Your task to perform on an android device: open a new tab in the chrome app Image 0: 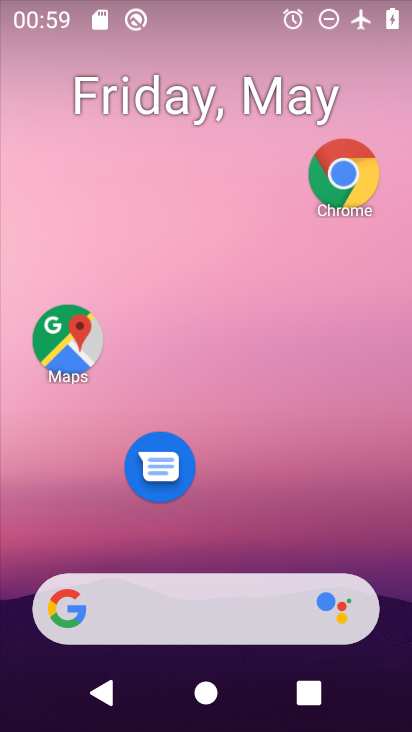
Step 0: click (340, 171)
Your task to perform on an android device: open a new tab in the chrome app Image 1: 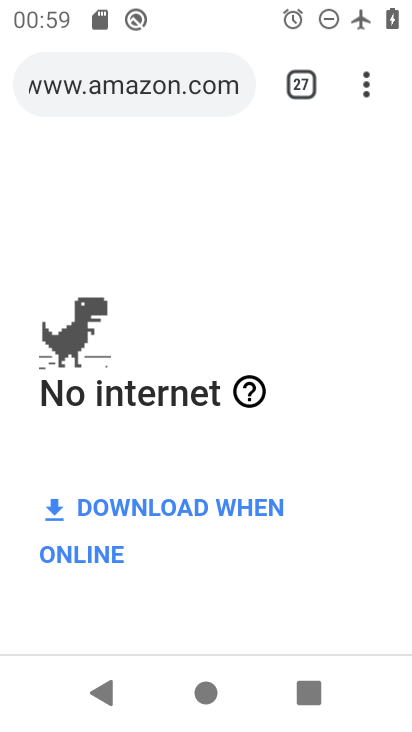
Step 1: click (357, 57)
Your task to perform on an android device: open a new tab in the chrome app Image 2: 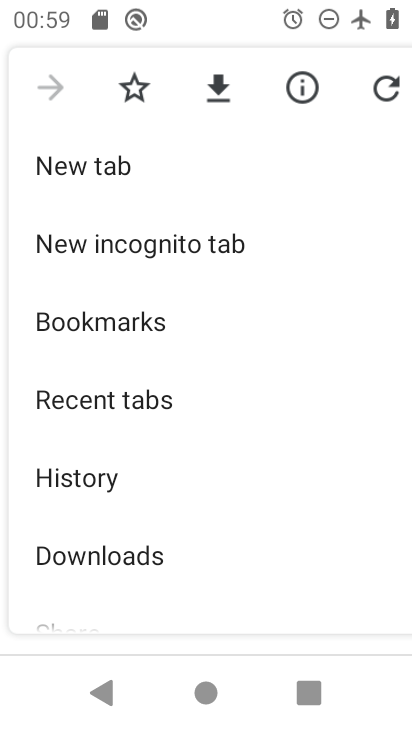
Step 2: click (133, 162)
Your task to perform on an android device: open a new tab in the chrome app Image 3: 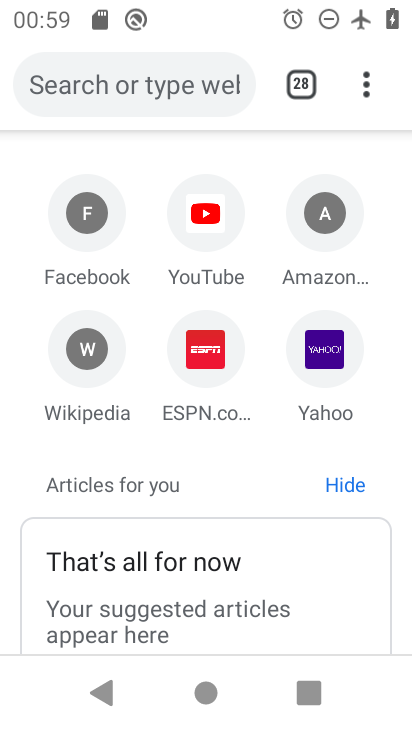
Step 3: task complete